Your task to perform on an android device: Open maps Image 0: 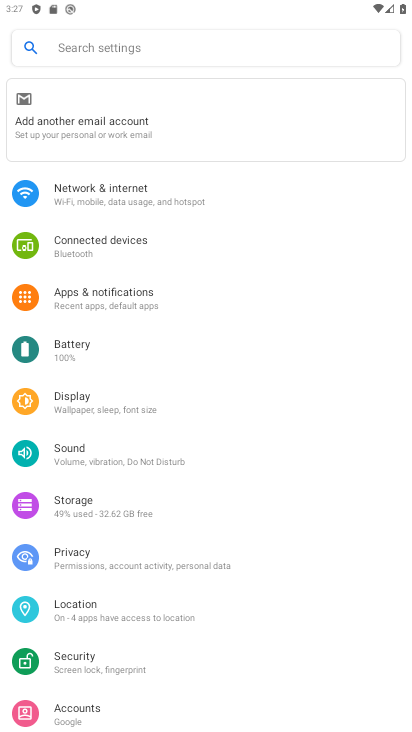
Step 0: press home button
Your task to perform on an android device: Open maps Image 1: 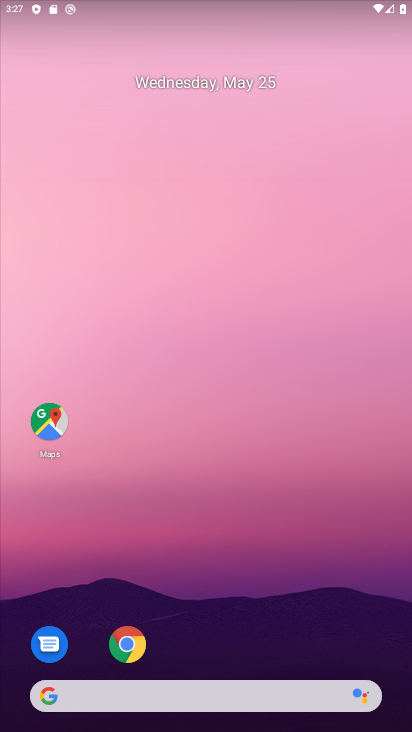
Step 1: click (50, 419)
Your task to perform on an android device: Open maps Image 2: 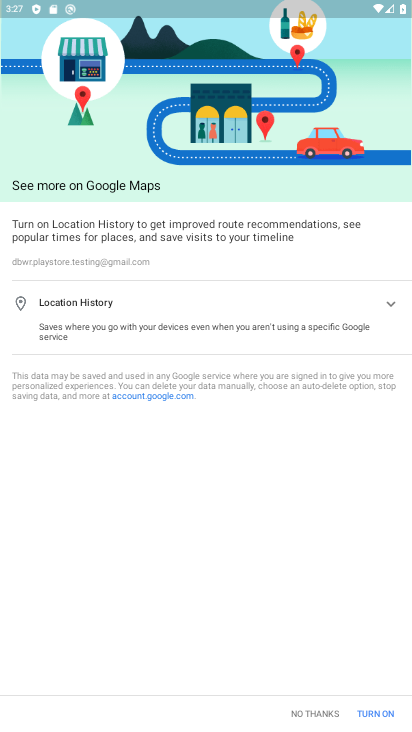
Step 2: click (300, 708)
Your task to perform on an android device: Open maps Image 3: 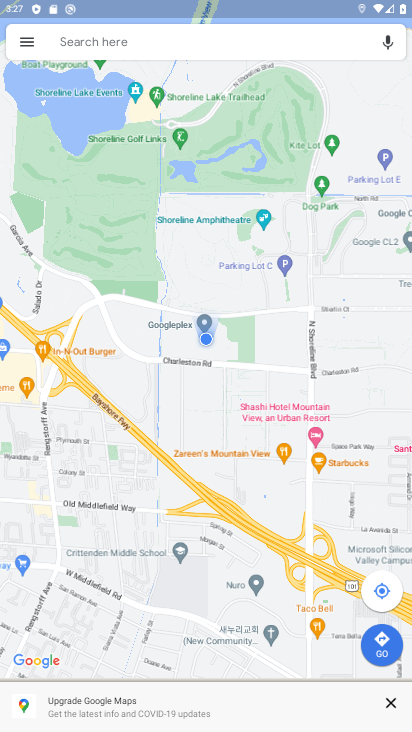
Step 3: task complete